Your task to perform on an android device: turn off location history Image 0: 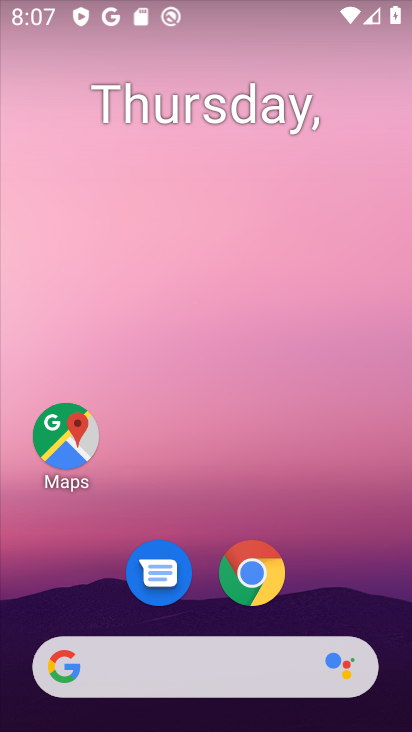
Step 0: drag from (357, 590) to (325, 179)
Your task to perform on an android device: turn off location history Image 1: 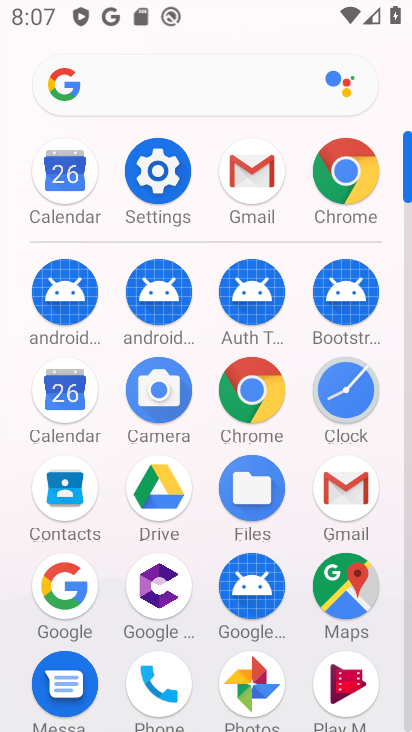
Step 1: click (161, 194)
Your task to perform on an android device: turn off location history Image 2: 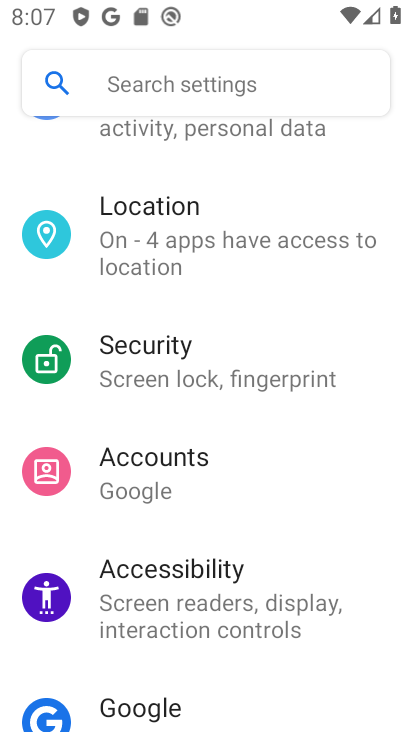
Step 2: click (197, 253)
Your task to perform on an android device: turn off location history Image 3: 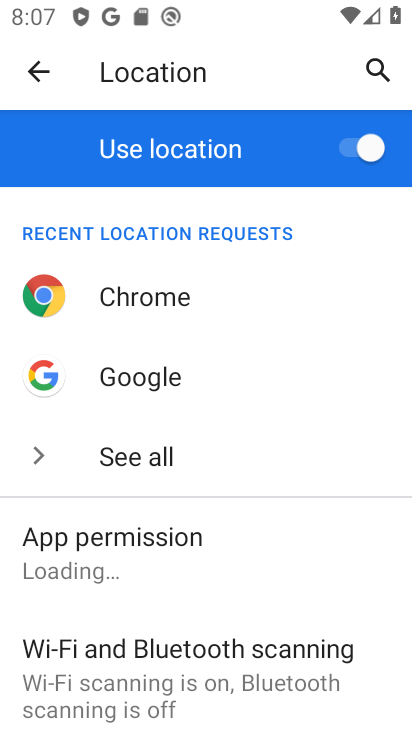
Step 3: drag from (275, 613) to (289, 282)
Your task to perform on an android device: turn off location history Image 4: 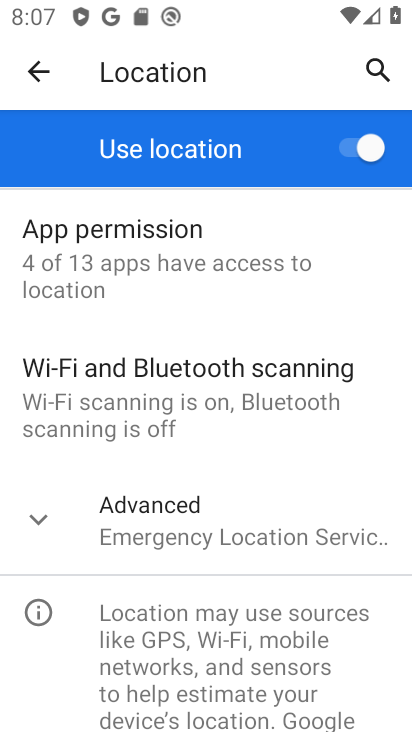
Step 4: click (273, 547)
Your task to perform on an android device: turn off location history Image 5: 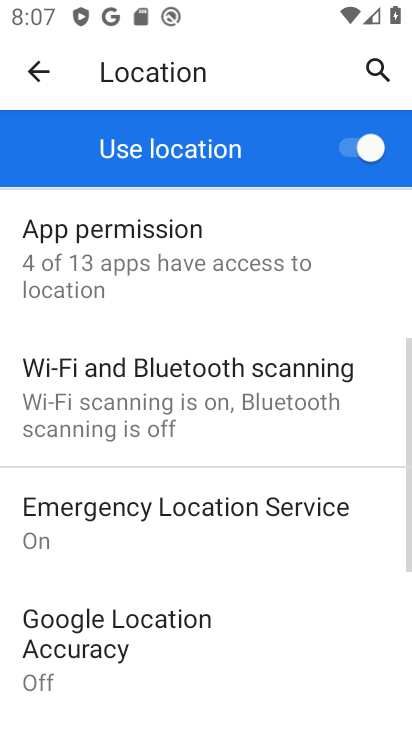
Step 5: drag from (266, 606) to (288, 319)
Your task to perform on an android device: turn off location history Image 6: 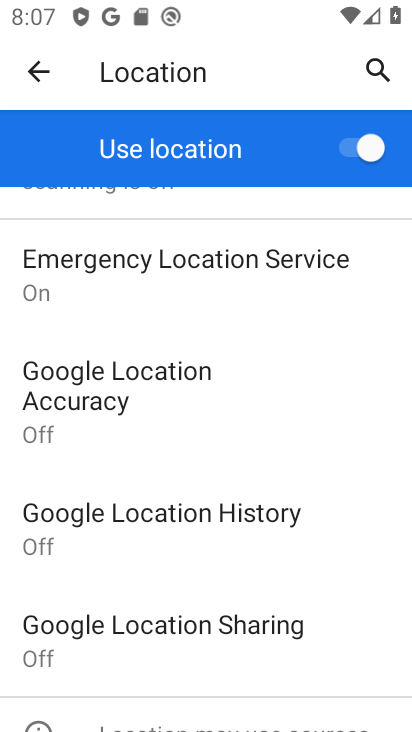
Step 6: click (247, 524)
Your task to perform on an android device: turn off location history Image 7: 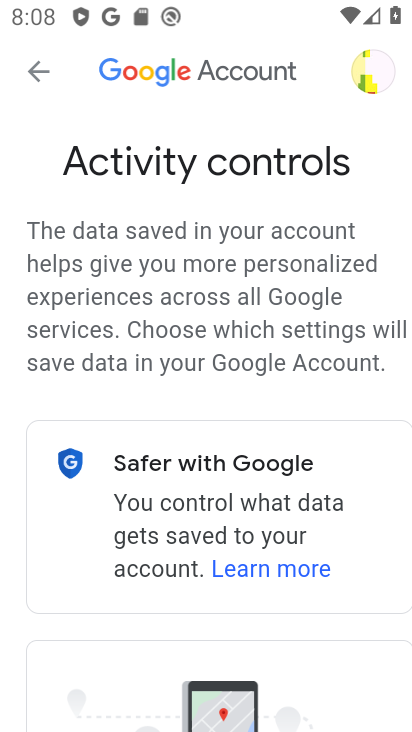
Step 7: drag from (156, 640) to (191, 276)
Your task to perform on an android device: turn off location history Image 8: 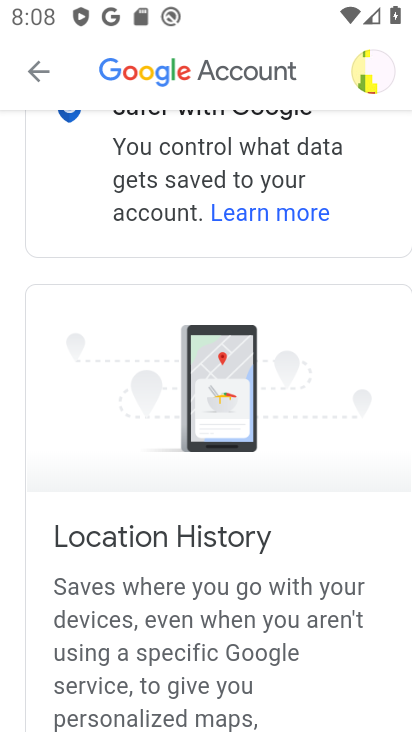
Step 8: drag from (162, 669) to (205, 264)
Your task to perform on an android device: turn off location history Image 9: 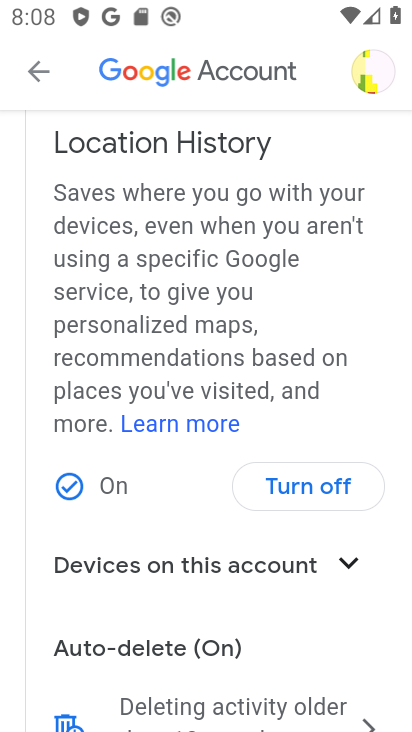
Step 9: click (300, 493)
Your task to perform on an android device: turn off location history Image 10: 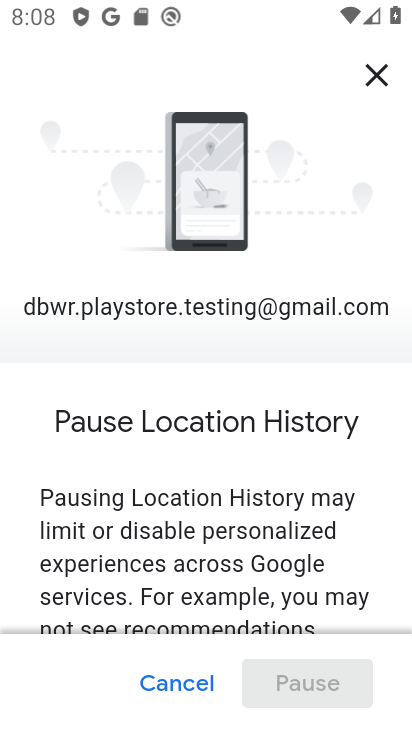
Step 10: drag from (267, 604) to (264, 210)
Your task to perform on an android device: turn off location history Image 11: 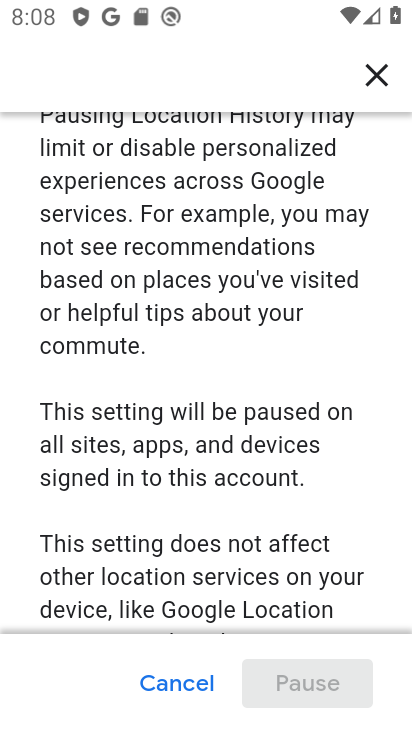
Step 11: drag from (228, 589) to (255, 173)
Your task to perform on an android device: turn off location history Image 12: 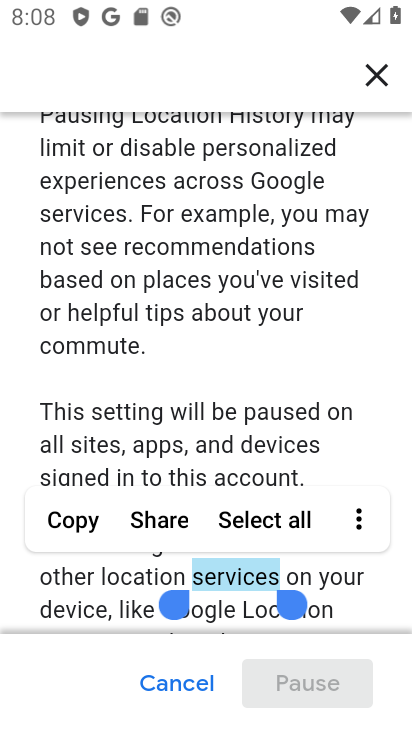
Step 12: drag from (42, 607) to (176, 179)
Your task to perform on an android device: turn off location history Image 13: 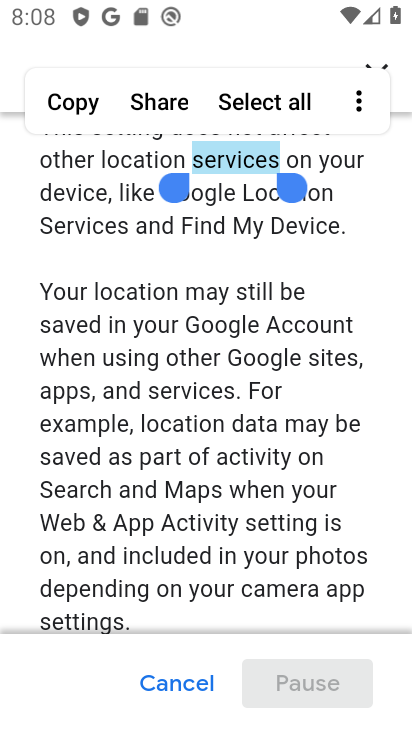
Step 13: drag from (270, 605) to (322, 161)
Your task to perform on an android device: turn off location history Image 14: 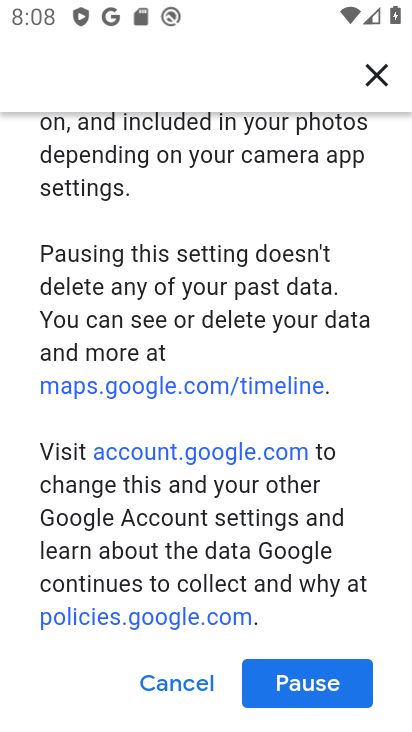
Step 14: click (297, 682)
Your task to perform on an android device: turn off location history Image 15: 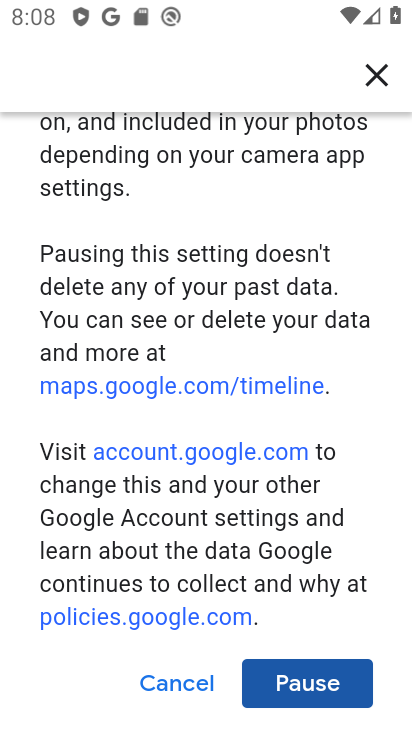
Step 15: click (301, 677)
Your task to perform on an android device: turn off location history Image 16: 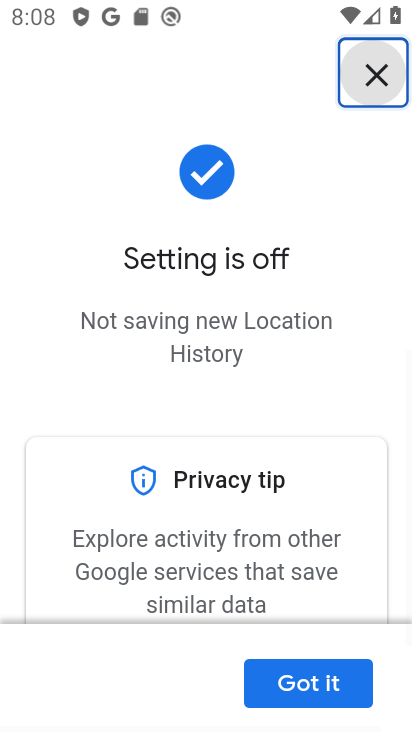
Step 16: click (304, 677)
Your task to perform on an android device: turn off location history Image 17: 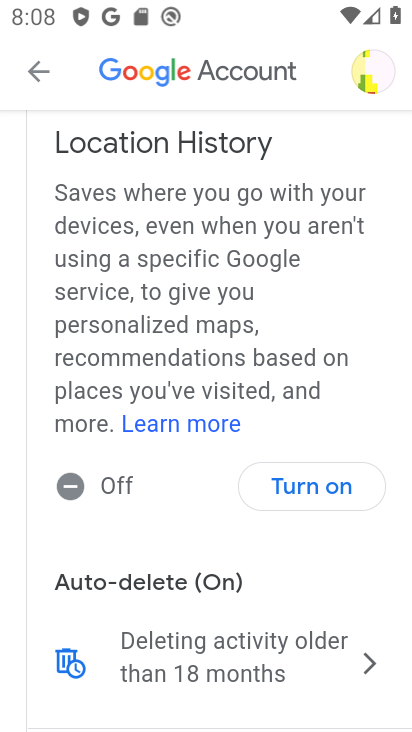
Step 17: task complete